Your task to perform on an android device: toggle priority inbox in the gmail app Image 0: 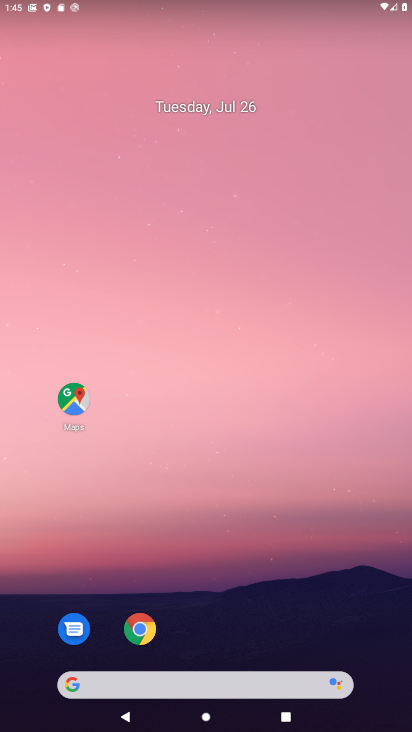
Step 0: drag from (198, 665) to (239, 157)
Your task to perform on an android device: toggle priority inbox in the gmail app Image 1: 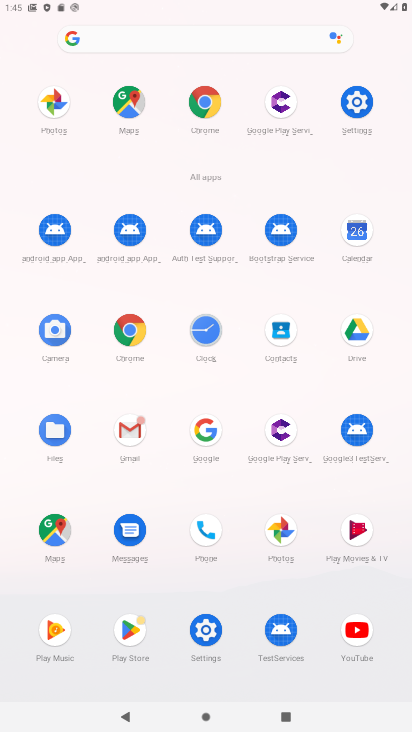
Step 1: click (140, 430)
Your task to perform on an android device: toggle priority inbox in the gmail app Image 2: 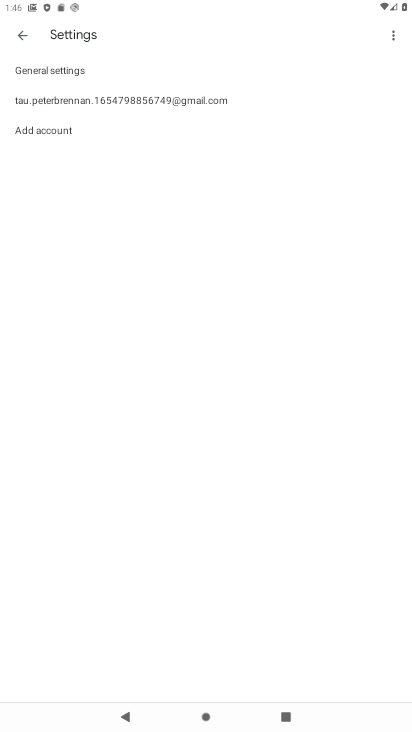
Step 2: click (94, 95)
Your task to perform on an android device: toggle priority inbox in the gmail app Image 3: 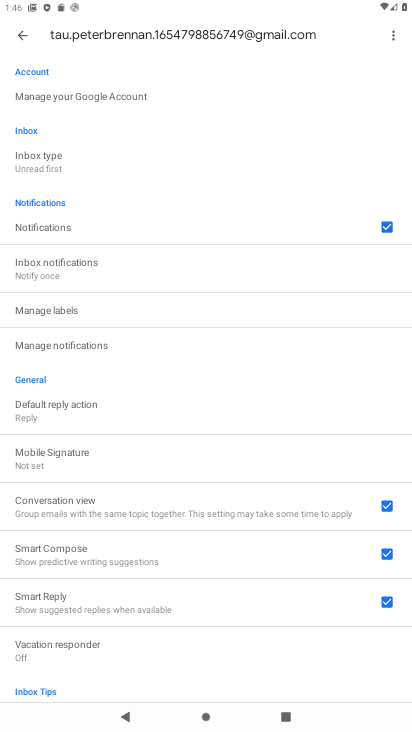
Step 3: click (38, 158)
Your task to perform on an android device: toggle priority inbox in the gmail app Image 4: 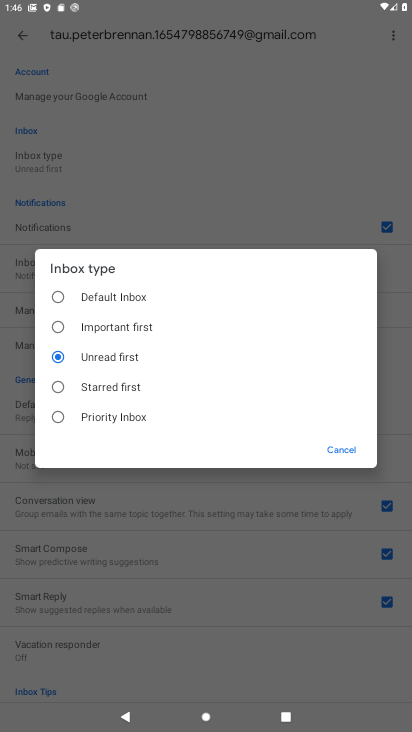
Step 4: click (113, 417)
Your task to perform on an android device: toggle priority inbox in the gmail app Image 5: 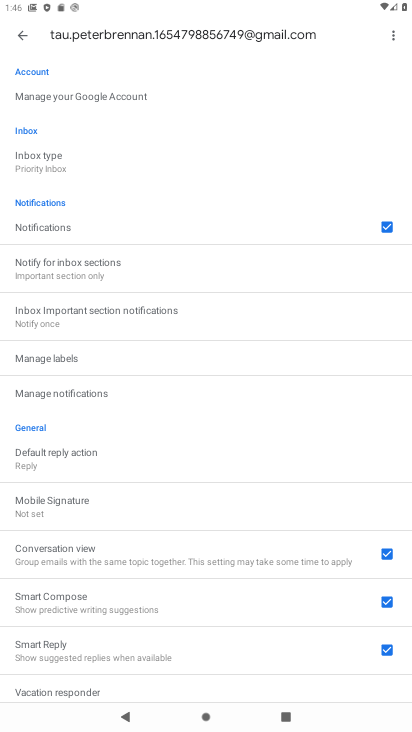
Step 5: task complete